Your task to perform on an android device: turn on data saver in the chrome app Image 0: 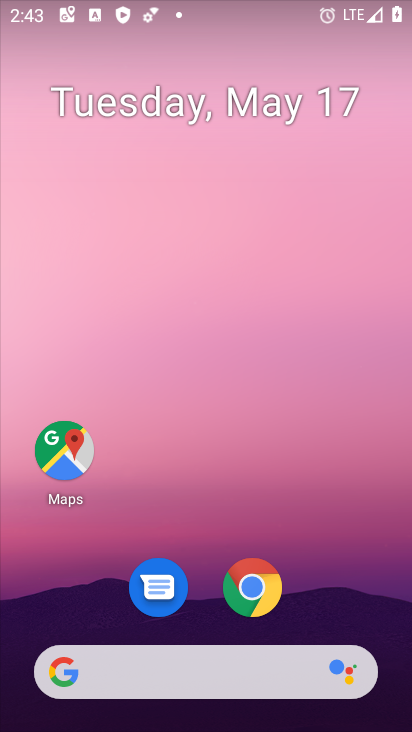
Step 0: drag from (203, 621) to (177, 27)
Your task to perform on an android device: turn on data saver in the chrome app Image 1: 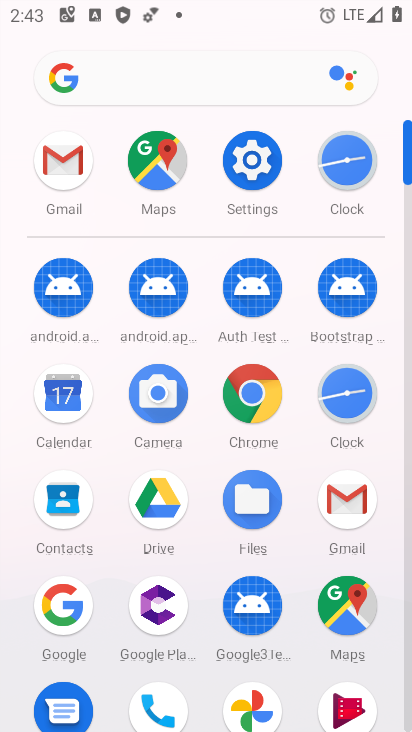
Step 1: click (251, 387)
Your task to perform on an android device: turn on data saver in the chrome app Image 2: 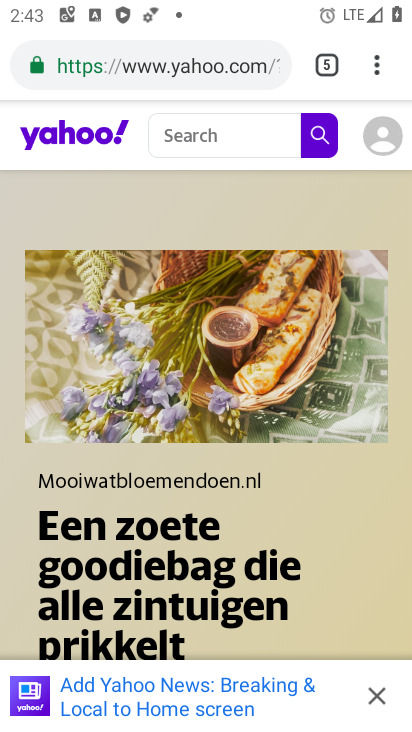
Step 2: click (384, 65)
Your task to perform on an android device: turn on data saver in the chrome app Image 3: 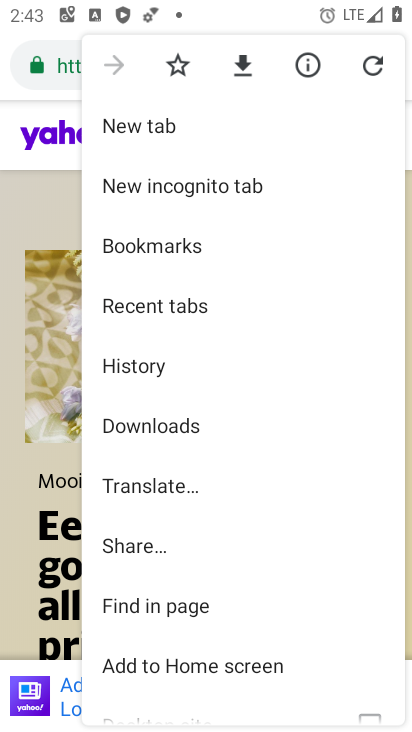
Step 3: drag from (215, 548) to (270, 173)
Your task to perform on an android device: turn on data saver in the chrome app Image 4: 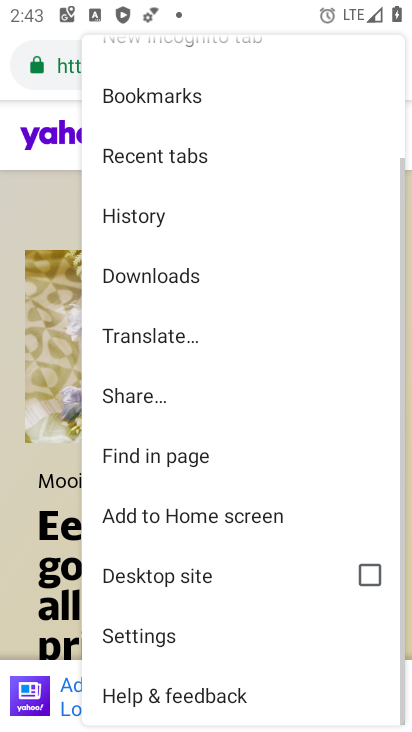
Step 4: click (162, 625)
Your task to perform on an android device: turn on data saver in the chrome app Image 5: 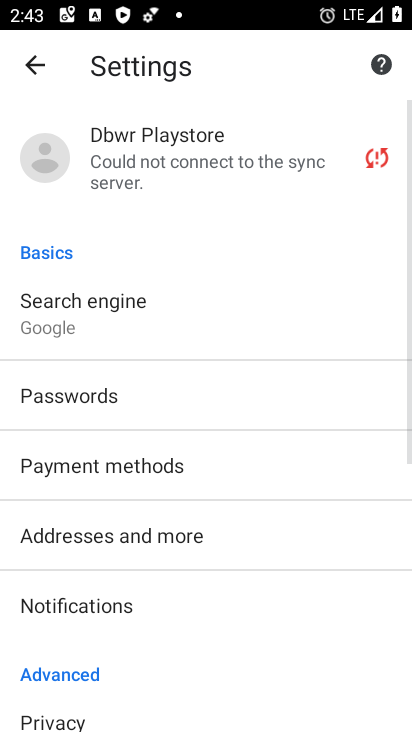
Step 5: drag from (175, 582) to (391, 153)
Your task to perform on an android device: turn on data saver in the chrome app Image 6: 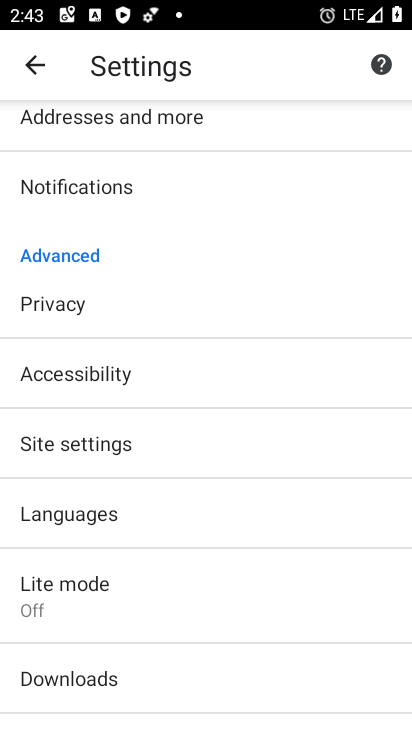
Step 6: click (110, 575)
Your task to perform on an android device: turn on data saver in the chrome app Image 7: 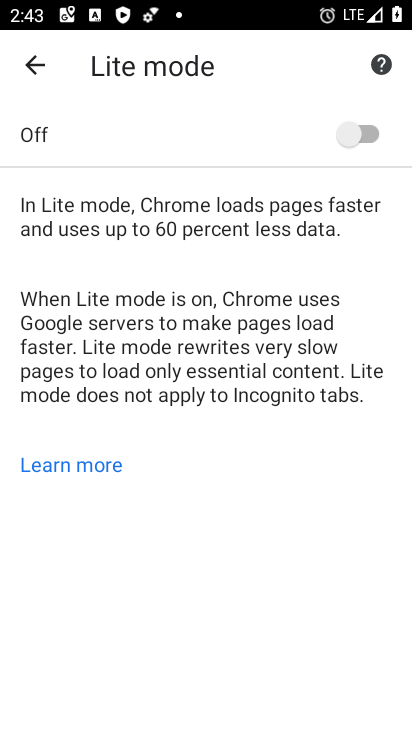
Step 7: click (344, 126)
Your task to perform on an android device: turn on data saver in the chrome app Image 8: 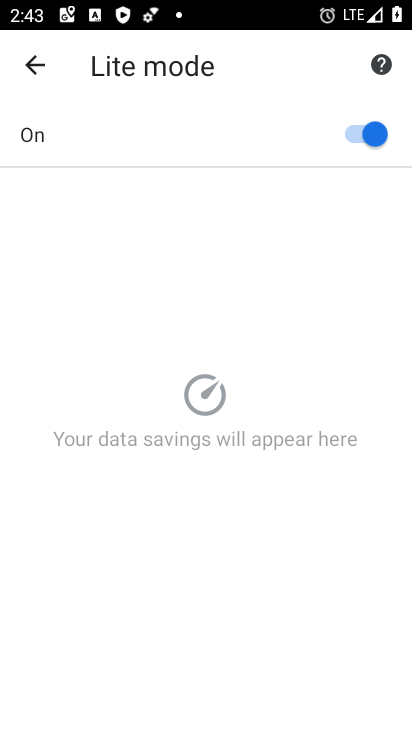
Step 8: task complete